Your task to perform on an android device: Turn off the flashlight Image 0: 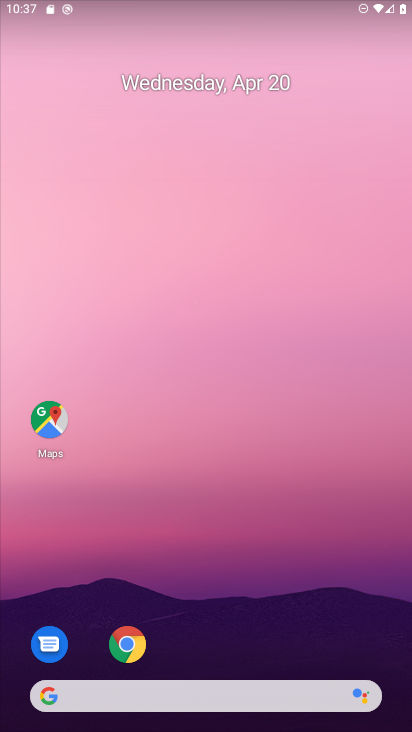
Step 0: drag from (319, 596) to (250, 77)
Your task to perform on an android device: Turn off the flashlight Image 1: 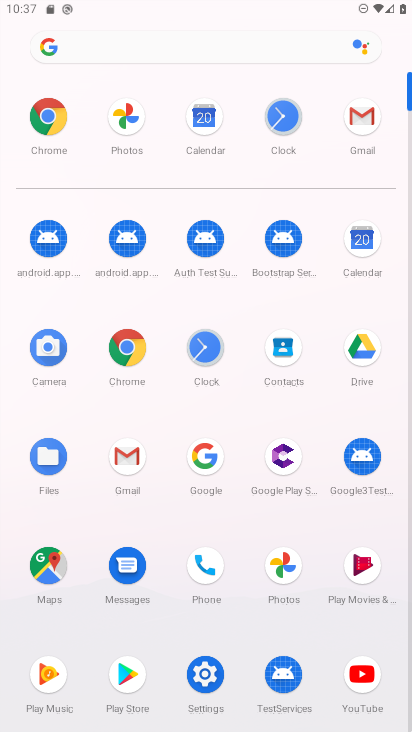
Step 1: click (210, 670)
Your task to perform on an android device: Turn off the flashlight Image 2: 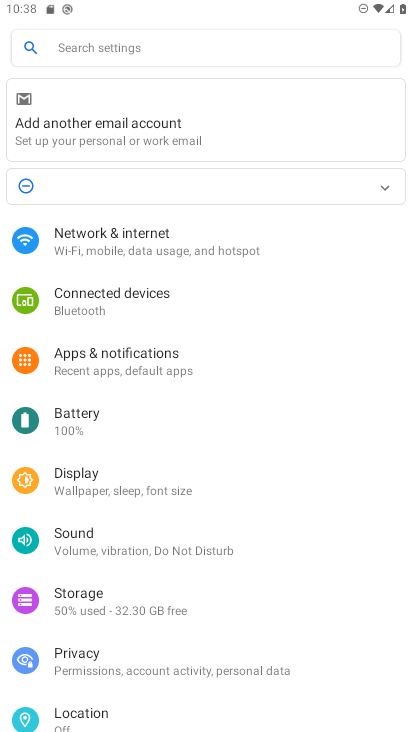
Step 2: task complete